Your task to perform on an android device: turn on notifications settings in the gmail app Image 0: 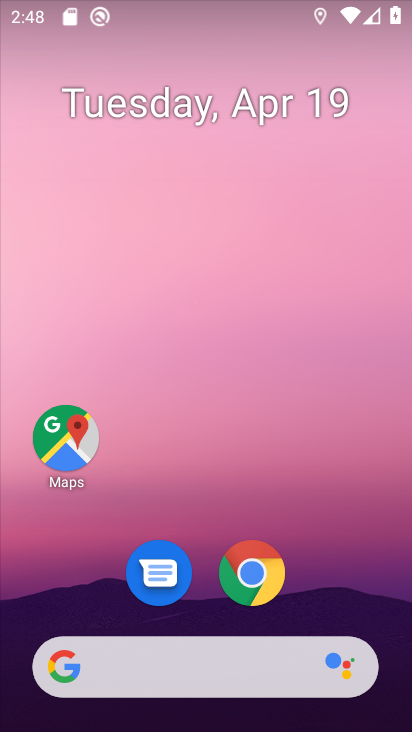
Step 0: drag from (208, 644) to (297, 47)
Your task to perform on an android device: turn on notifications settings in the gmail app Image 1: 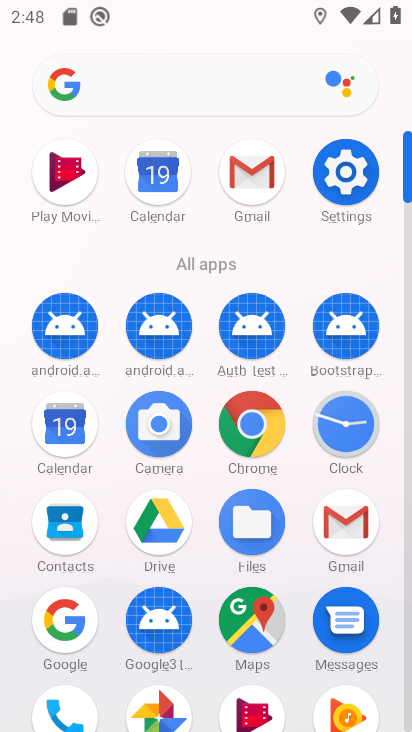
Step 1: click (340, 520)
Your task to perform on an android device: turn on notifications settings in the gmail app Image 2: 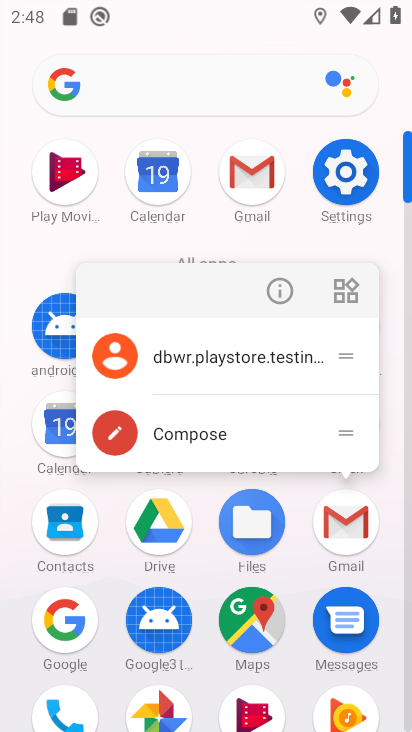
Step 2: click (332, 511)
Your task to perform on an android device: turn on notifications settings in the gmail app Image 3: 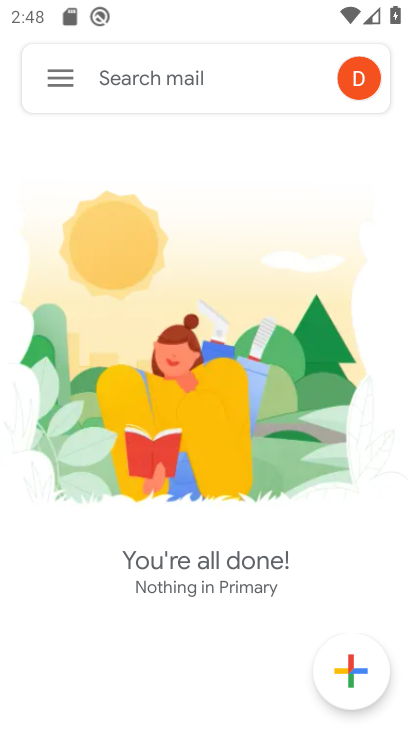
Step 3: click (55, 78)
Your task to perform on an android device: turn on notifications settings in the gmail app Image 4: 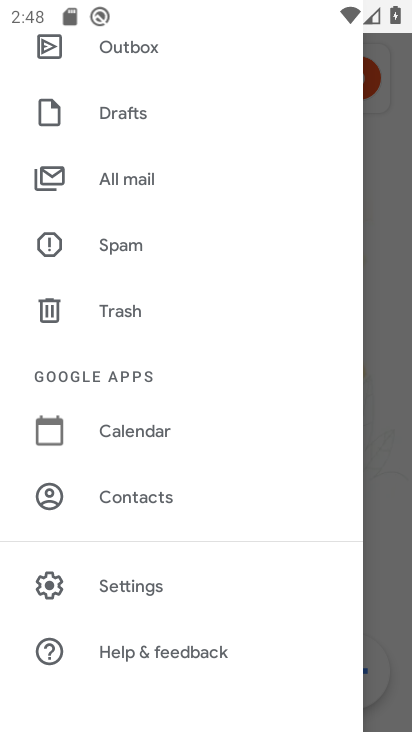
Step 4: click (170, 585)
Your task to perform on an android device: turn on notifications settings in the gmail app Image 5: 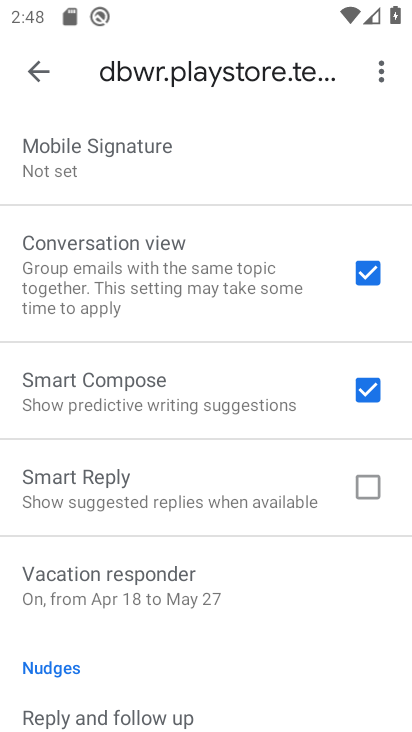
Step 5: drag from (209, 590) to (282, 245)
Your task to perform on an android device: turn on notifications settings in the gmail app Image 6: 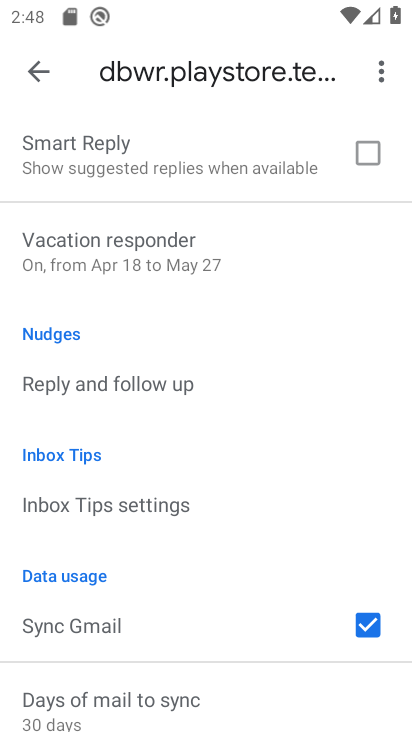
Step 6: drag from (142, 296) to (79, 637)
Your task to perform on an android device: turn on notifications settings in the gmail app Image 7: 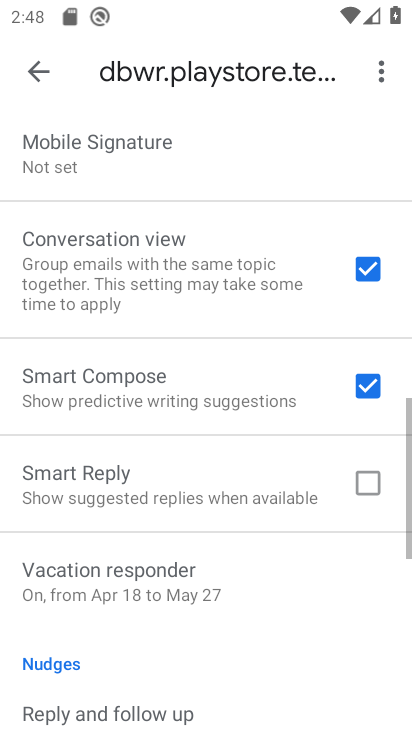
Step 7: drag from (98, 238) to (65, 543)
Your task to perform on an android device: turn on notifications settings in the gmail app Image 8: 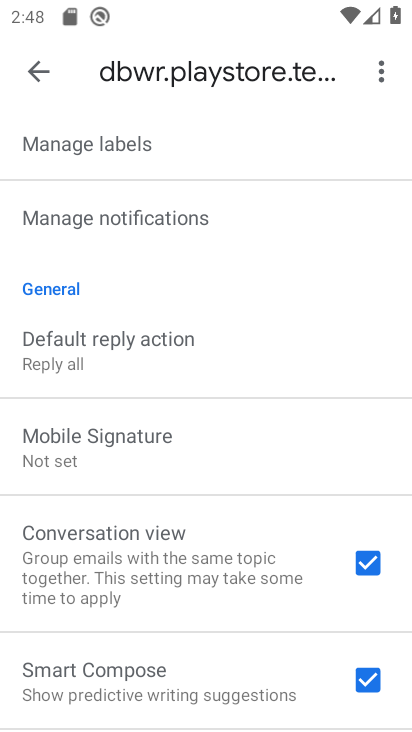
Step 8: click (155, 237)
Your task to perform on an android device: turn on notifications settings in the gmail app Image 9: 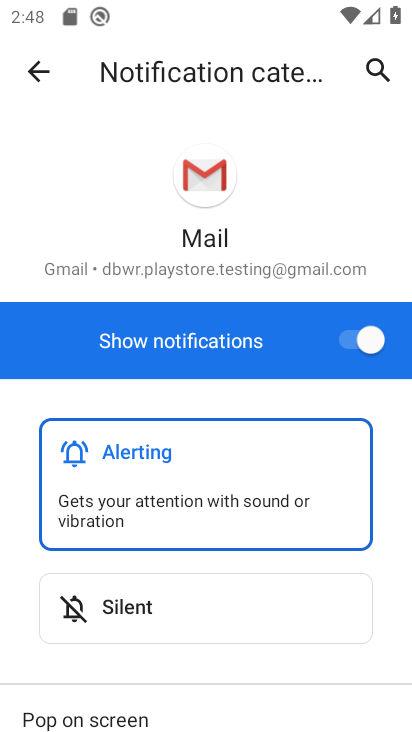
Step 9: task complete